Your task to perform on an android device: Go to location settings Image 0: 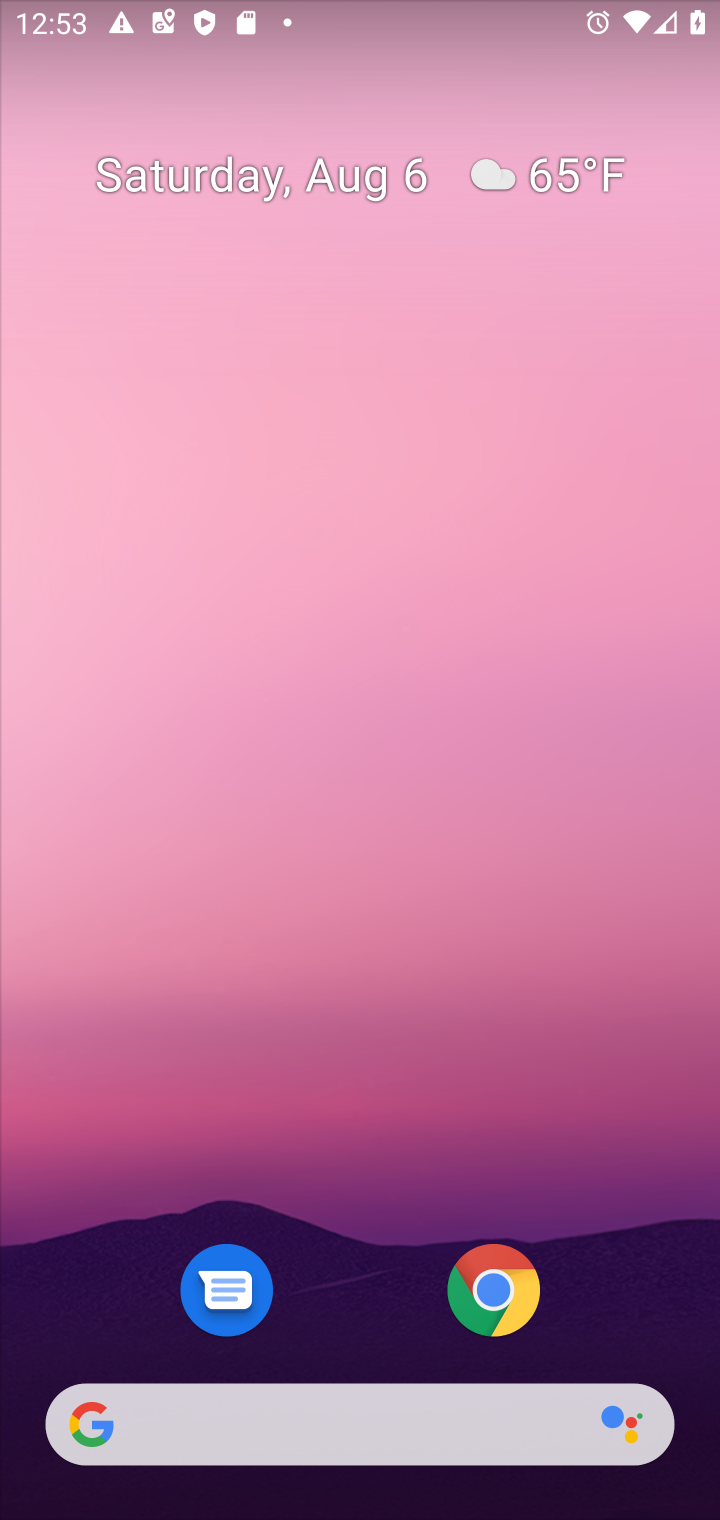
Step 0: press home button
Your task to perform on an android device: Go to location settings Image 1: 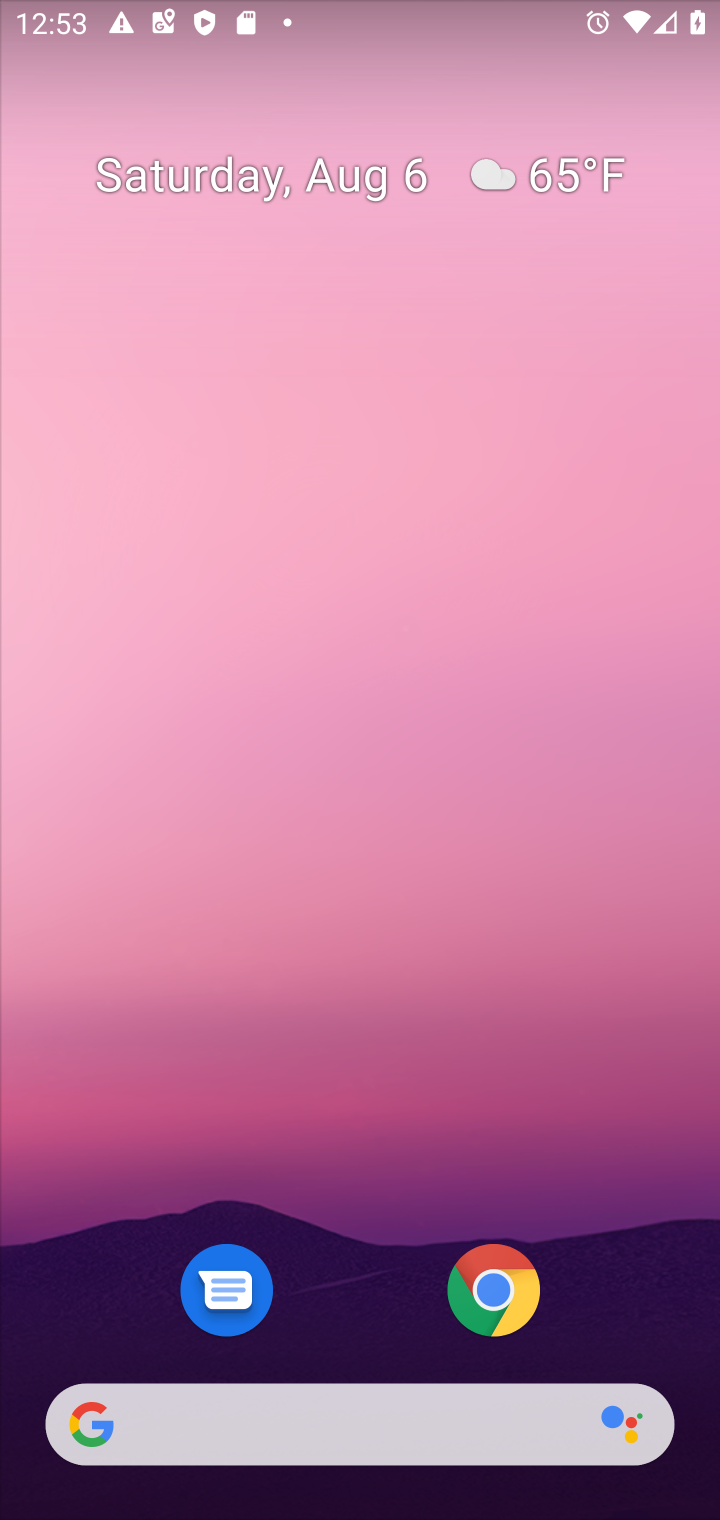
Step 1: drag from (383, 1227) to (401, 245)
Your task to perform on an android device: Go to location settings Image 2: 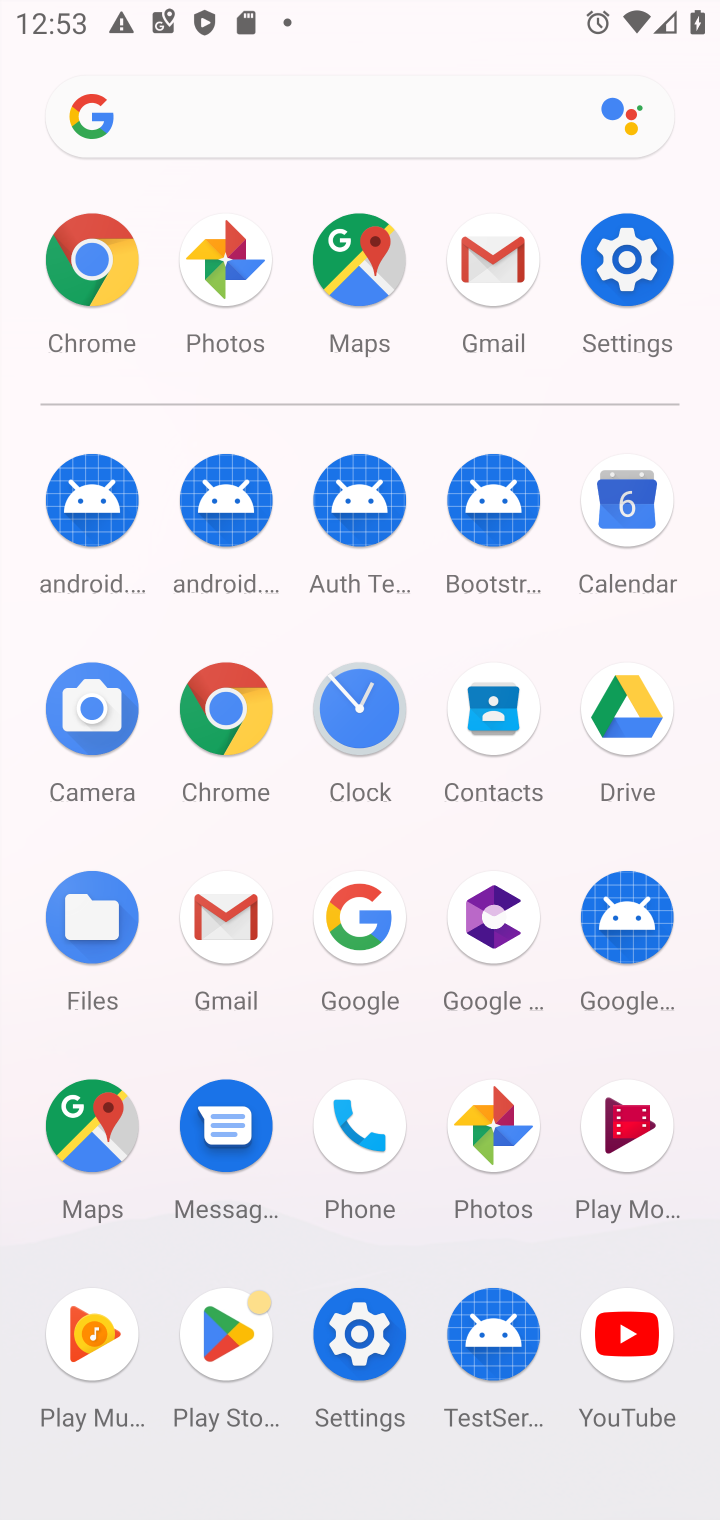
Step 2: click (621, 250)
Your task to perform on an android device: Go to location settings Image 3: 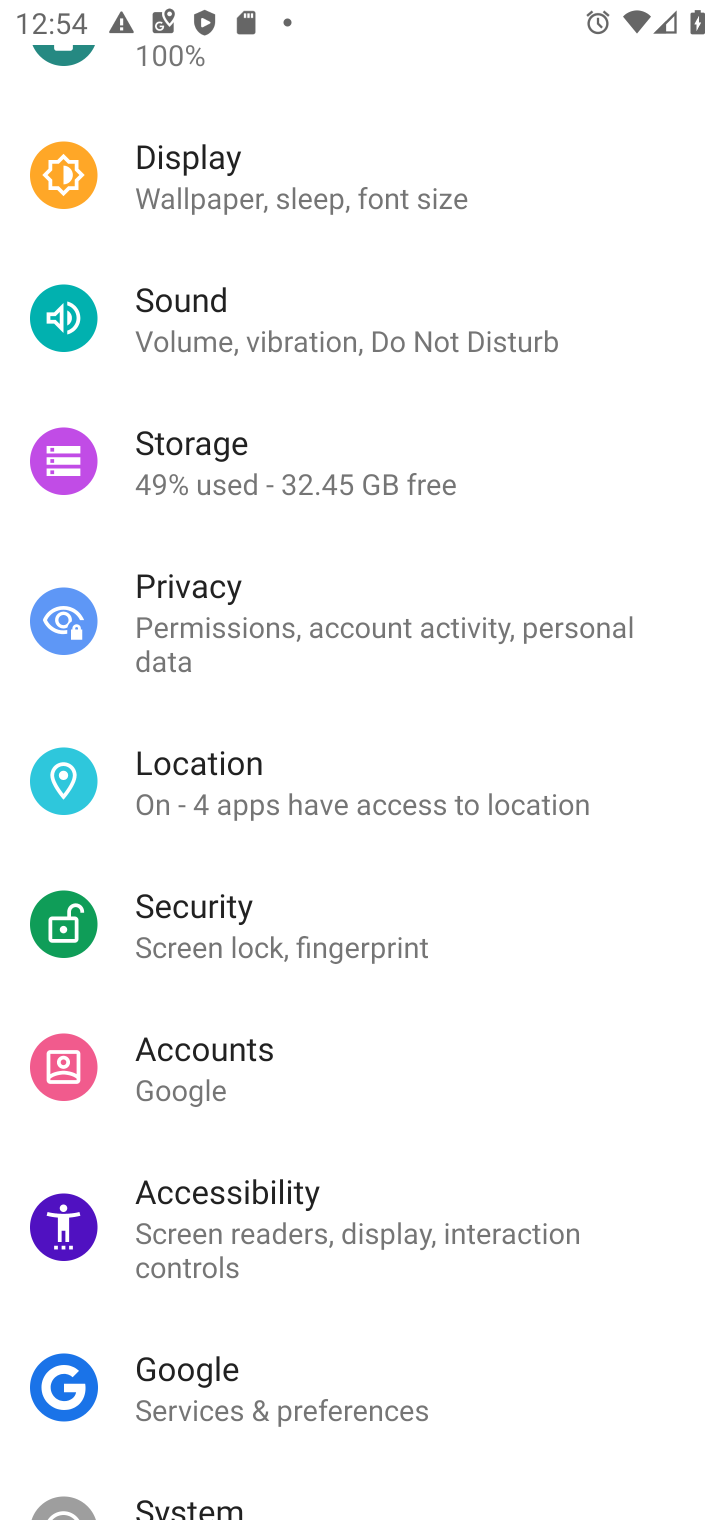
Step 3: click (306, 769)
Your task to perform on an android device: Go to location settings Image 4: 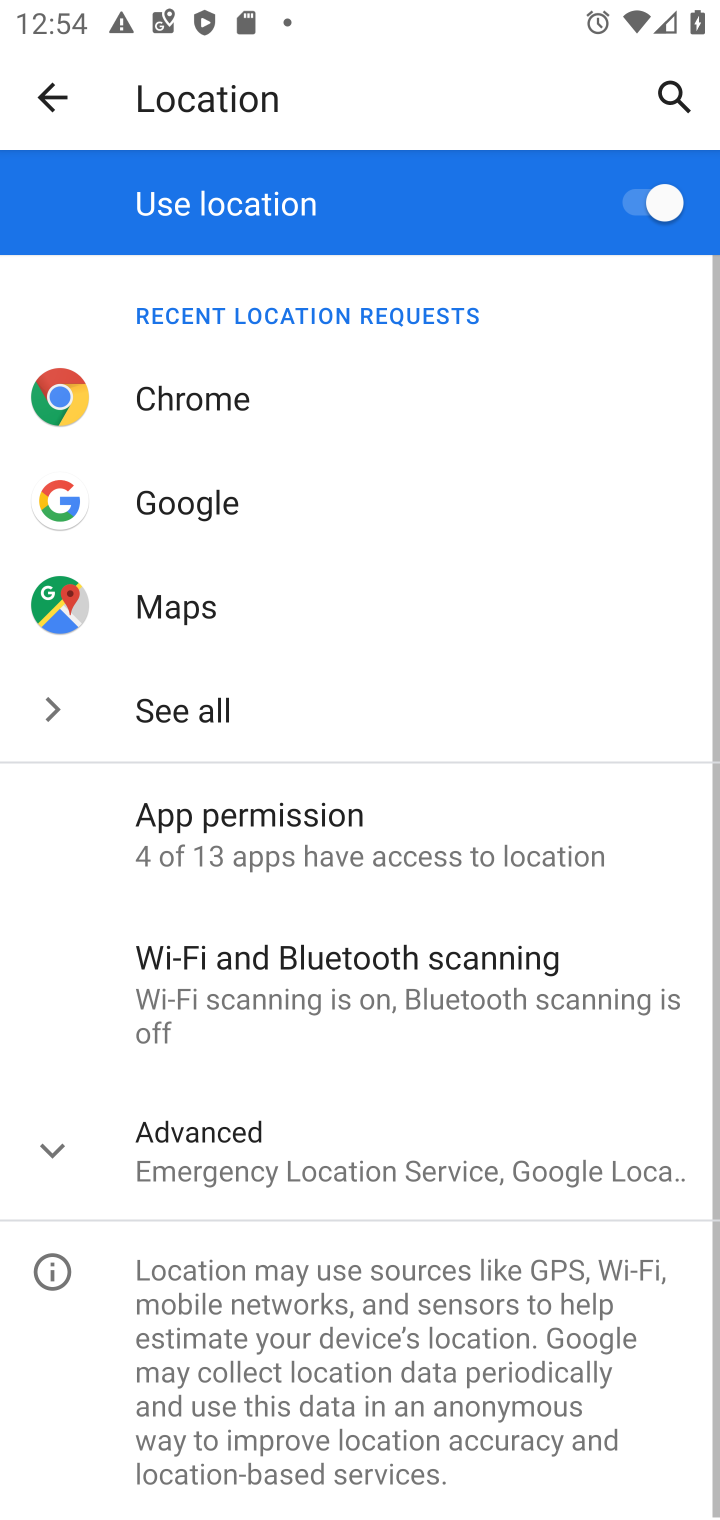
Step 4: click (68, 1133)
Your task to perform on an android device: Go to location settings Image 5: 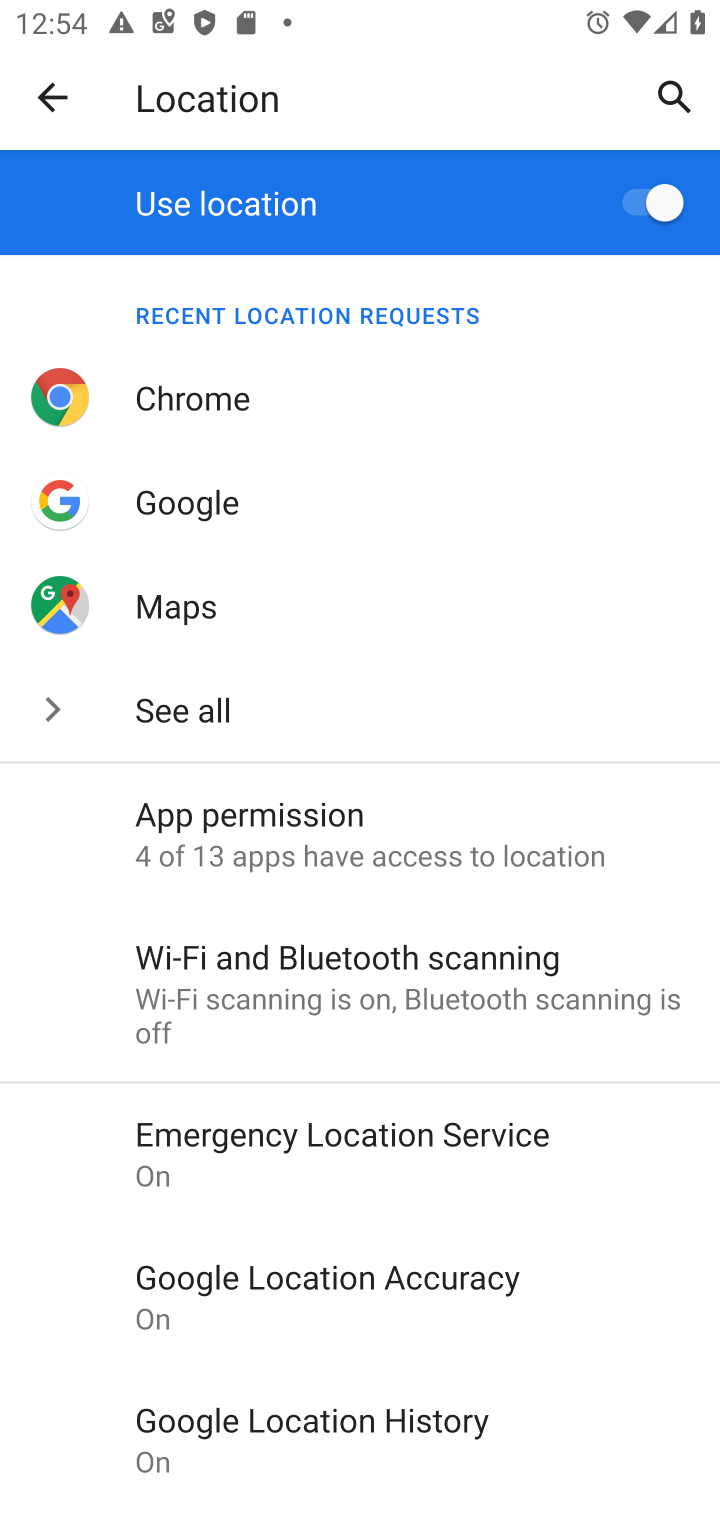
Step 5: task complete